Your task to perform on an android device: Open Amazon Image 0: 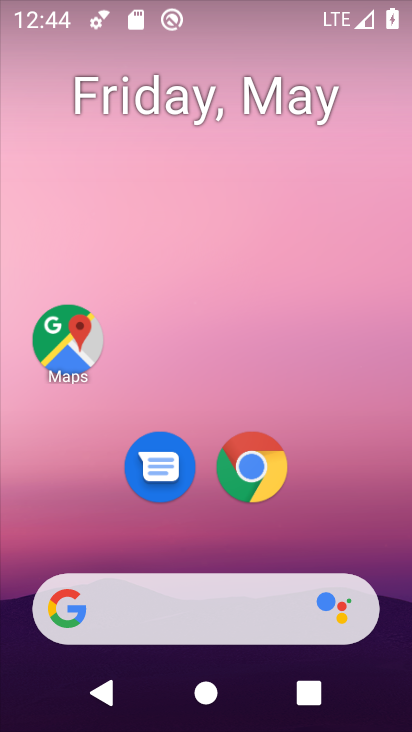
Step 0: press home button
Your task to perform on an android device: Open Amazon Image 1: 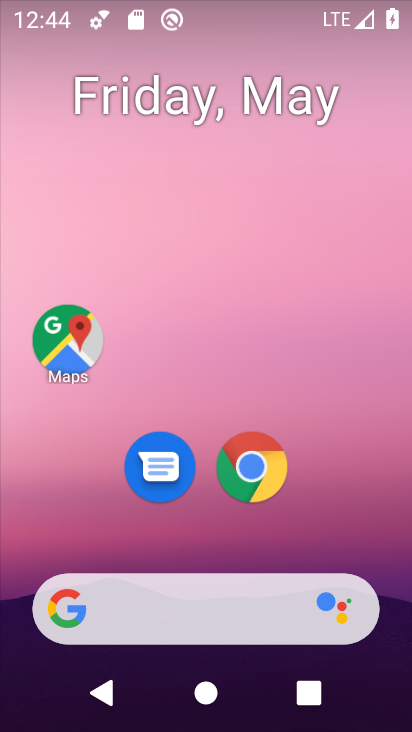
Step 1: drag from (343, 565) to (411, 29)
Your task to perform on an android device: Open Amazon Image 2: 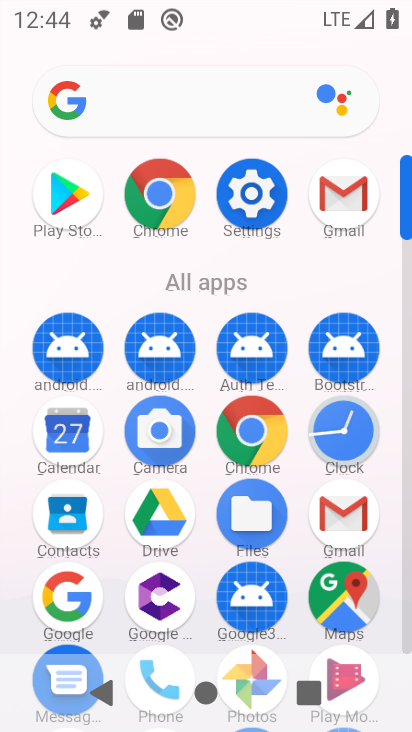
Step 2: click (167, 194)
Your task to perform on an android device: Open Amazon Image 3: 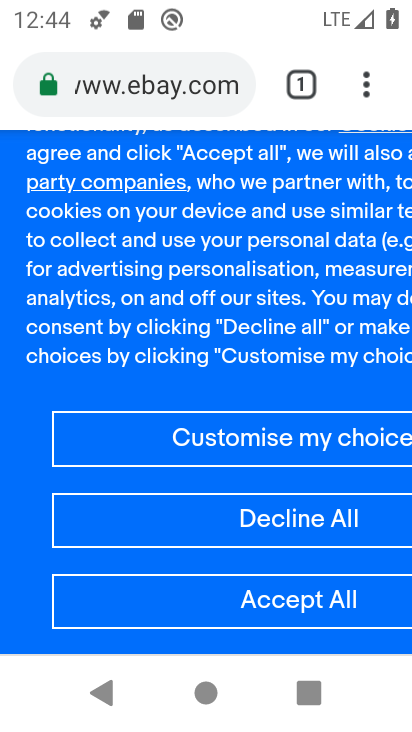
Step 3: click (180, 87)
Your task to perform on an android device: Open Amazon Image 4: 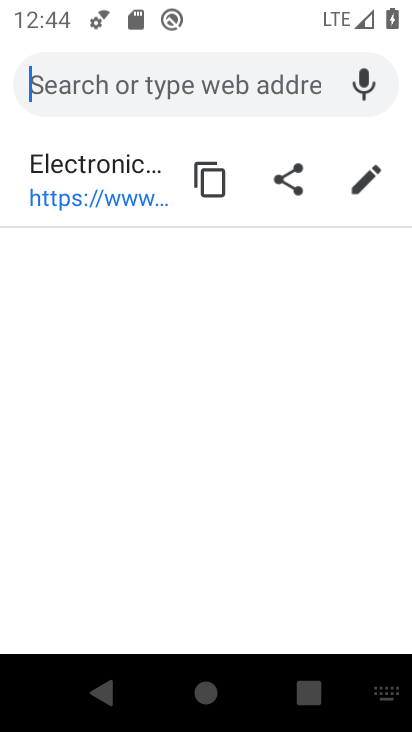
Step 4: type "amzon"
Your task to perform on an android device: Open Amazon Image 5: 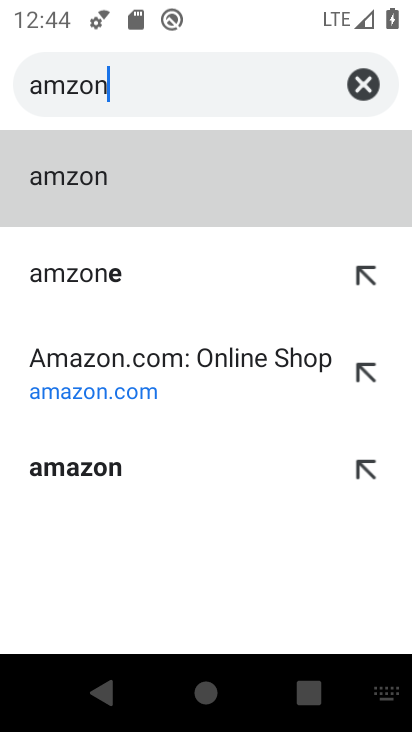
Step 5: click (87, 307)
Your task to perform on an android device: Open Amazon Image 6: 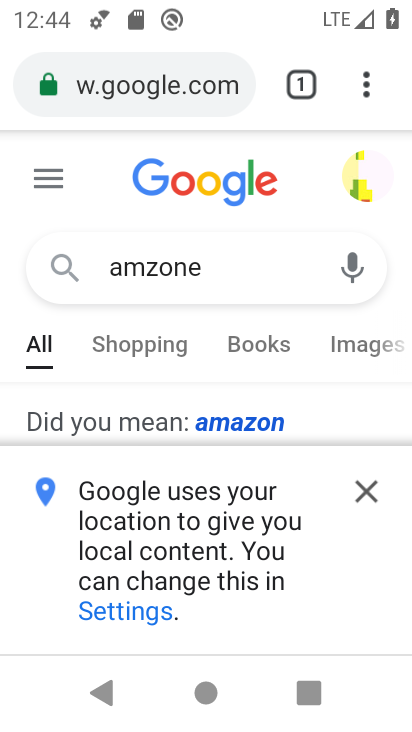
Step 6: click (367, 495)
Your task to perform on an android device: Open Amazon Image 7: 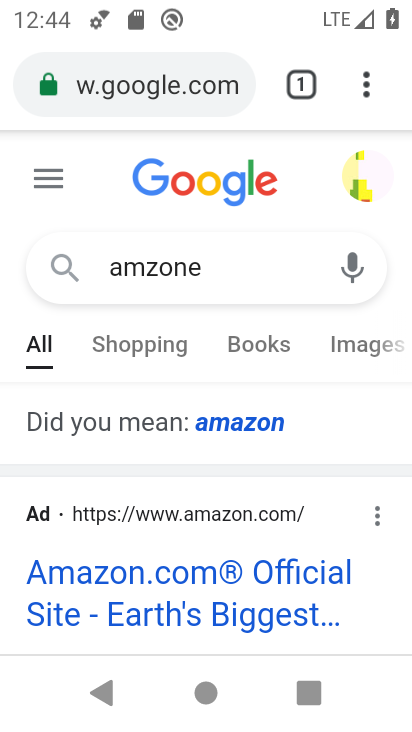
Step 7: click (112, 564)
Your task to perform on an android device: Open Amazon Image 8: 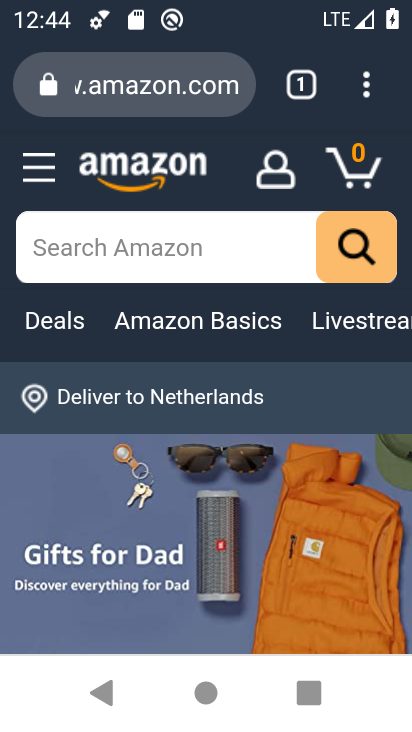
Step 8: task complete